Your task to perform on an android device: Open Yahoo.com Image 0: 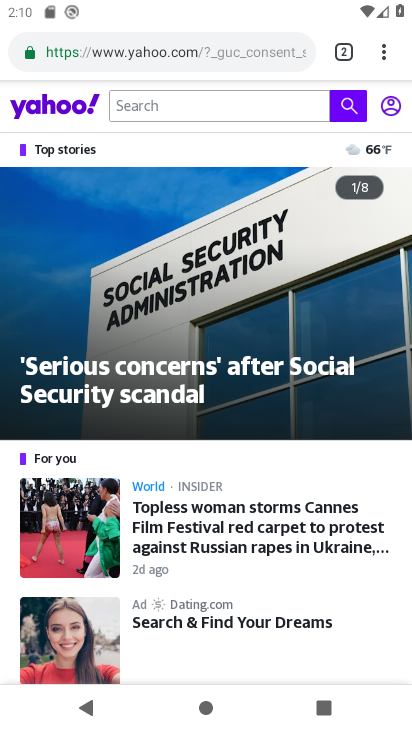
Step 0: task complete